Your task to perform on an android device: open a bookmark in the chrome app Image 0: 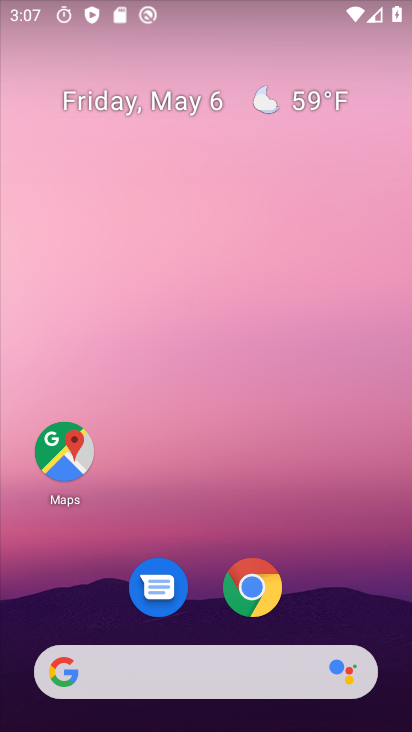
Step 0: click (259, 589)
Your task to perform on an android device: open a bookmark in the chrome app Image 1: 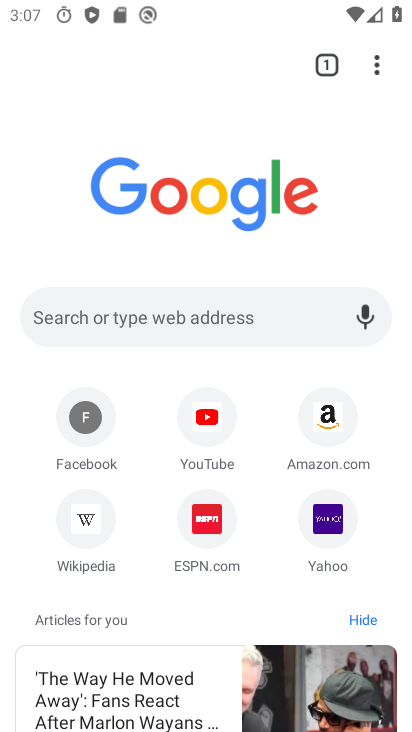
Step 1: drag from (376, 64) to (199, 246)
Your task to perform on an android device: open a bookmark in the chrome app Image 2: 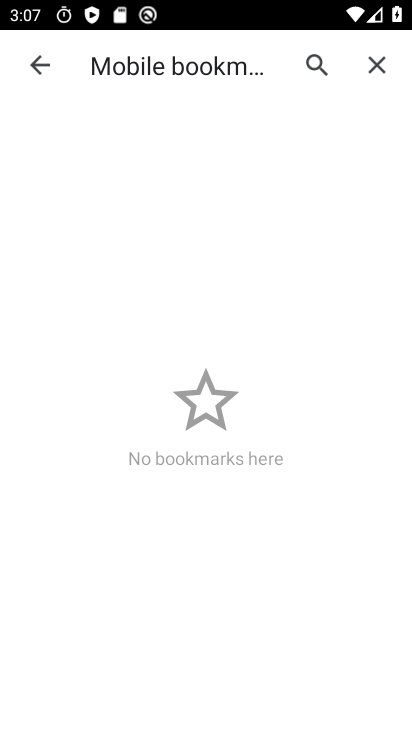
Step 2: click (40, 61)
Your task to perform on an android device: open a bookmark in the chrome app Image 3: 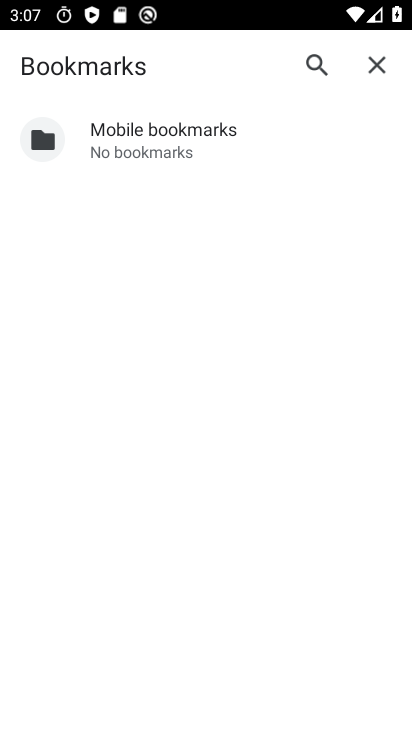
Step 3: click (136, 140)
Your task to perform on an android device: open a bookmark in the chrome app Image 4: 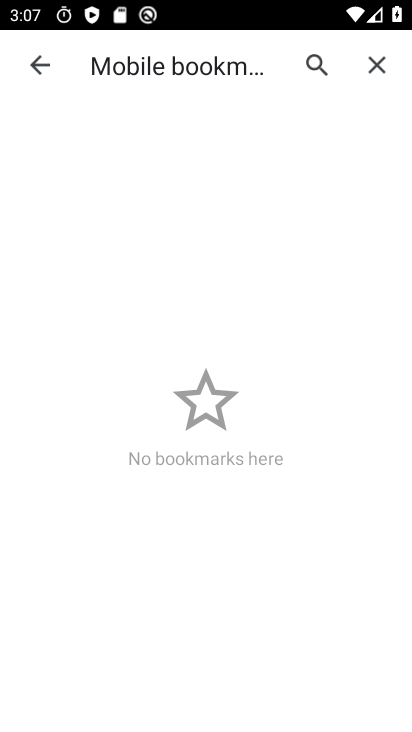
Step 4: task complete